Your task to perform on an android device: turn off priority inbox in the gmail app Image 0: 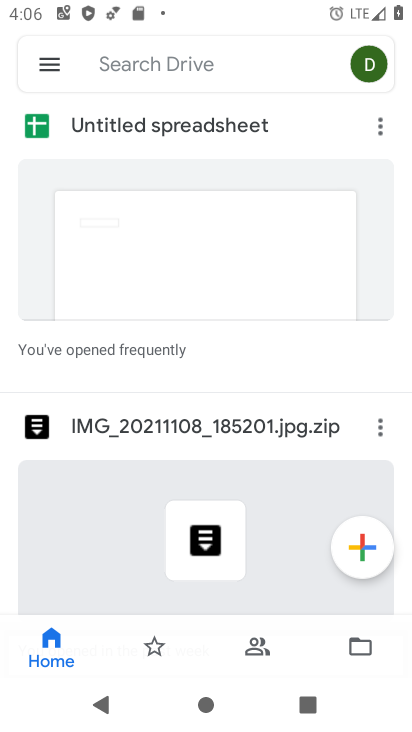
Step 0: press back button
Your task to perform on an android device: turn off priority inbox in the gmail app Image 1: 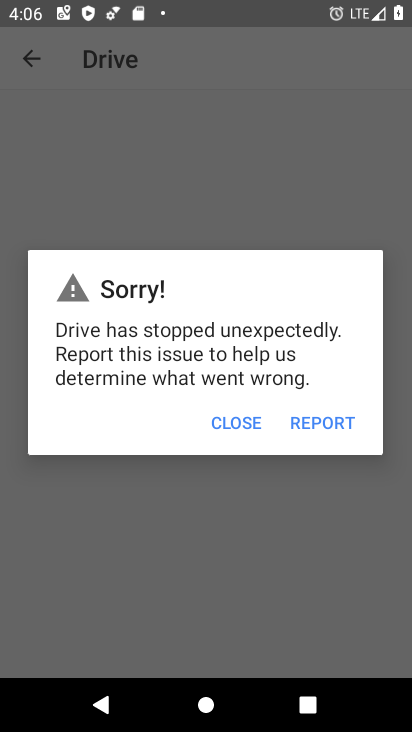
Step 1: press home button
Your task to perform on an android device: turn off priority inbox in the gmail app Image 2: 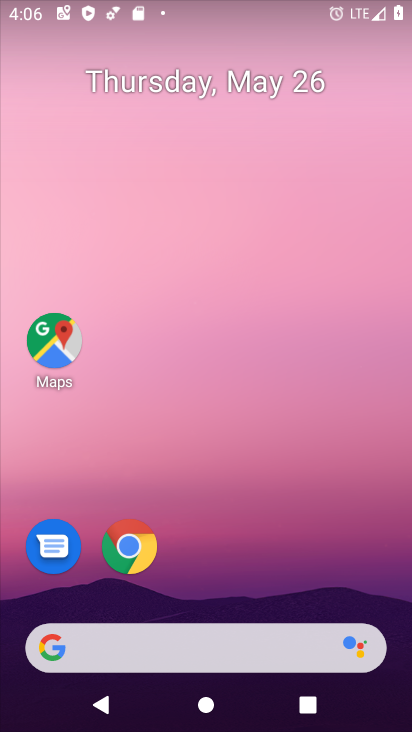
Step 2: drag from (223, 534) to (309, 3)
Your task to perform on an android device: turn off priority inbox in the gmail app Image 3: 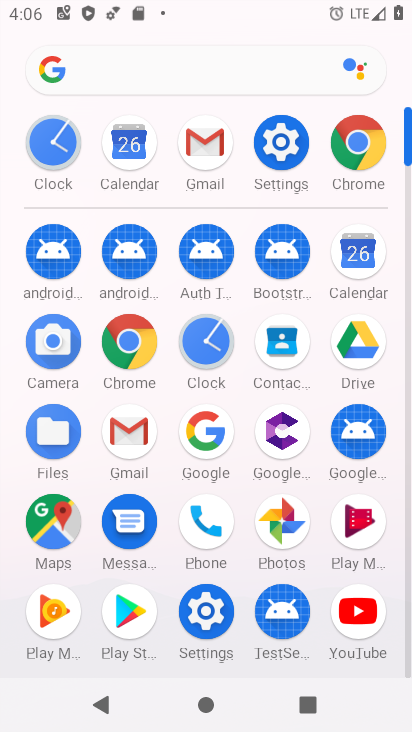
Step 3: click (193, 145)
Your task to perform on an android device: turn off priority inbox in the gmail app Image 4: 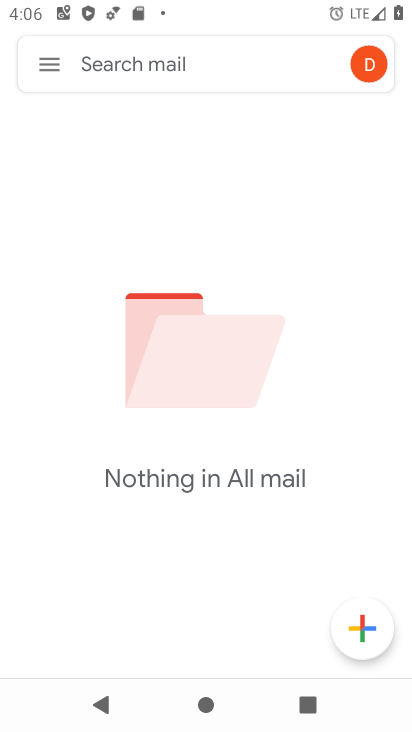
Step 4: click (53, 63)
Your task to perform on an android device: turn off priority inbox in the gmail app Image 5: 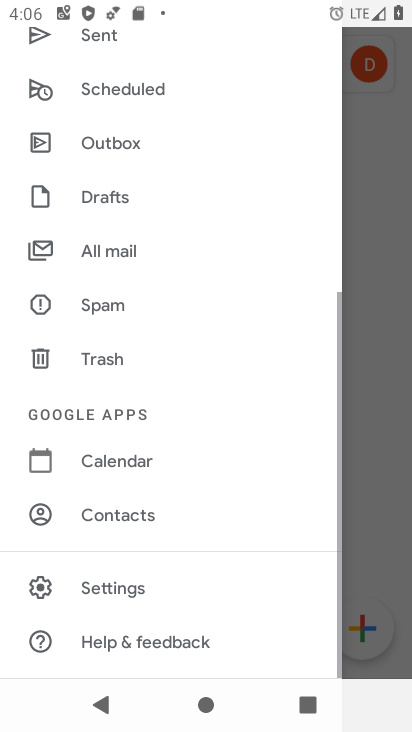
Step 5: click (133, 589)
Your task to perform on an android device: turn off priority inbox in the gmail app Image 6: 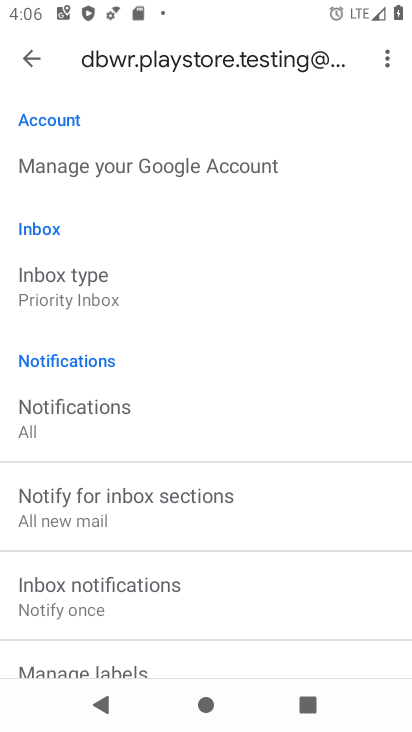
Step 6: click (27, 291)
Your task to perform on an android device: turn off priority inbox in the gmail app Image 7: 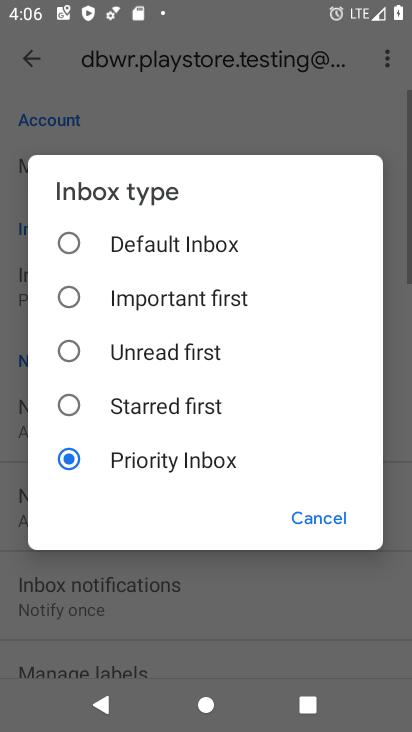
Step 7: click (84, 240)
Your task to perform on an android device: turn off priority inbox in the gmail app Image 8: 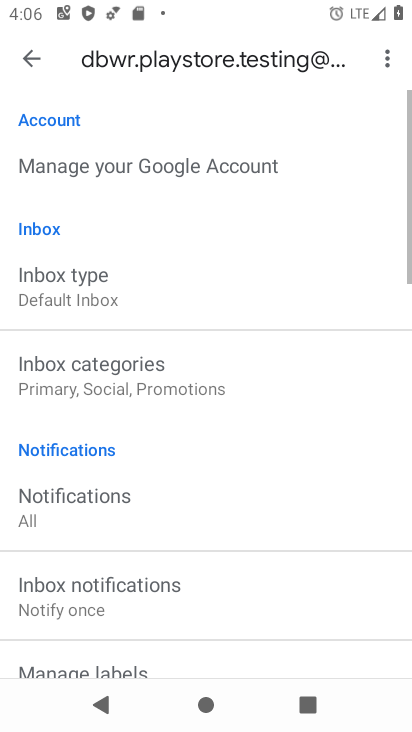
Step 8: task complete